Your task to perform on an android device: empty trash in the gmail app Image 0: 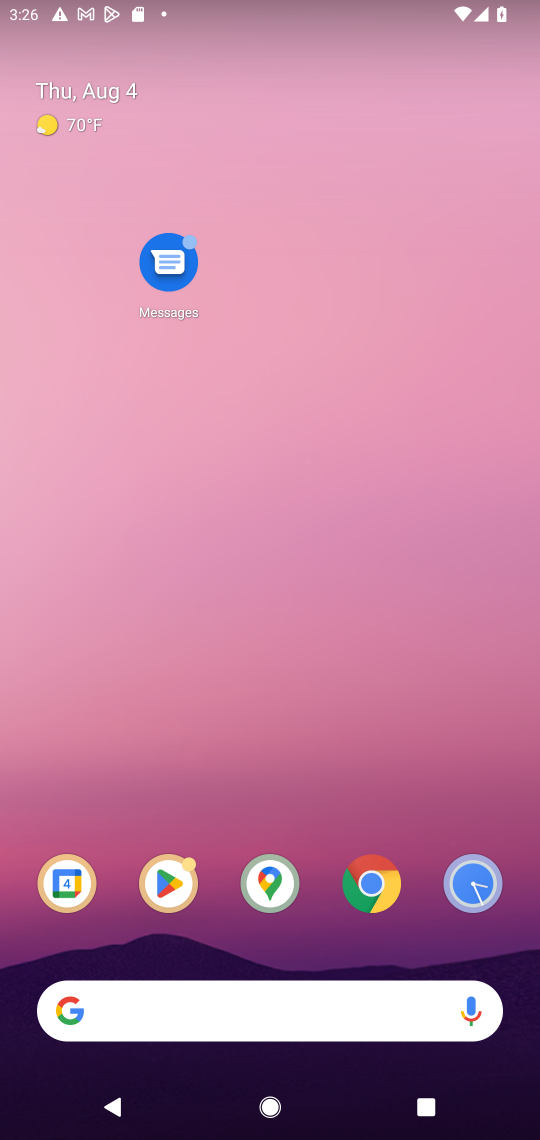
Step 0: drag from (313, 959) to (338, 29)
Your task to perform on an android device: empty trash in the gmail app Image 1: 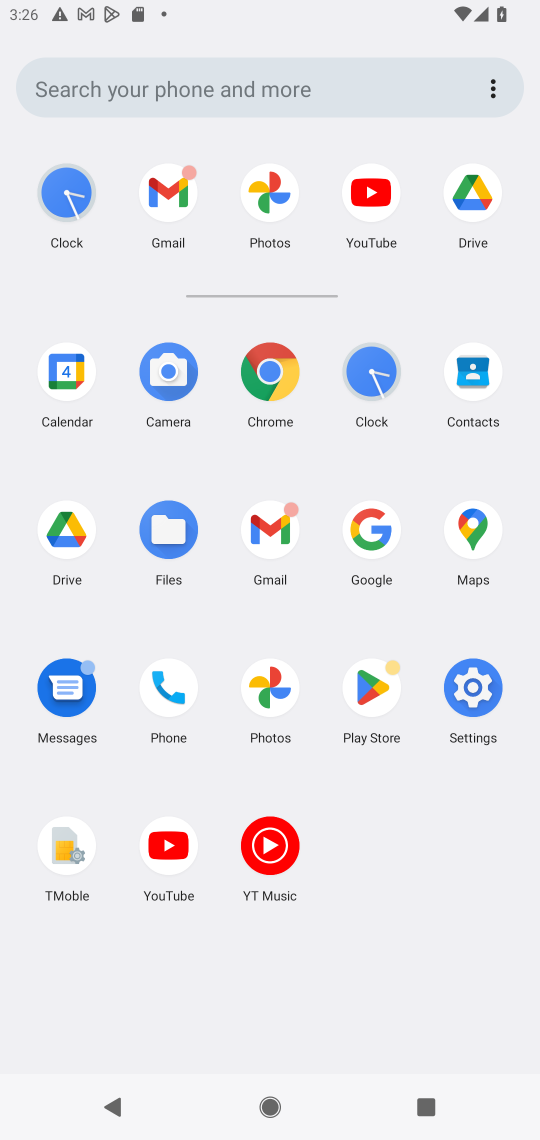
Step 1: click (266, 523)
Your task to perform on an android device: empty trash in the gmail app Image 2: 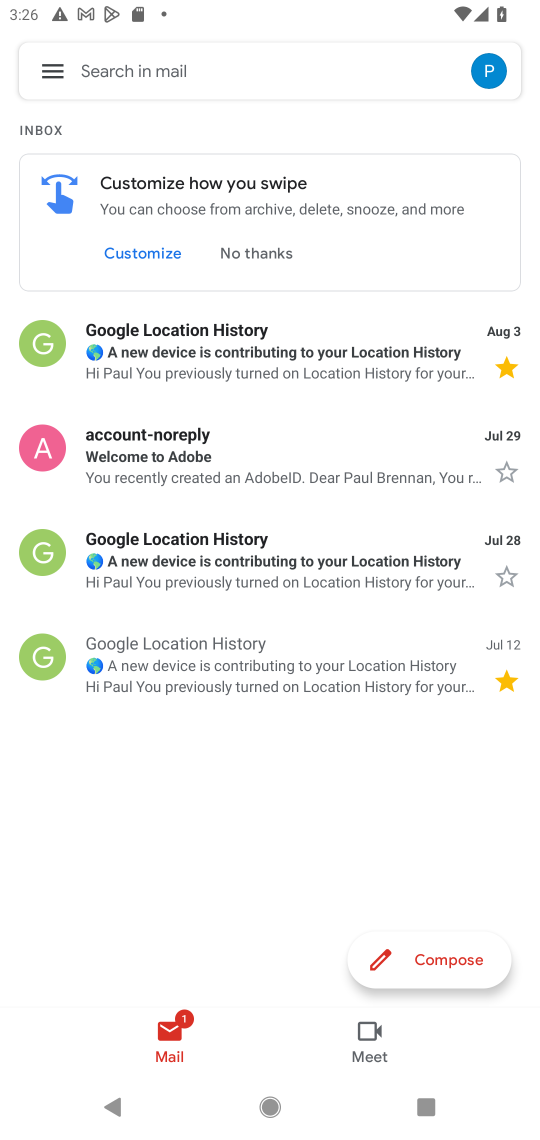
Step 2: click (51, 74)
Your task to perform on an android device: empty trash in the gmail app Image 3: 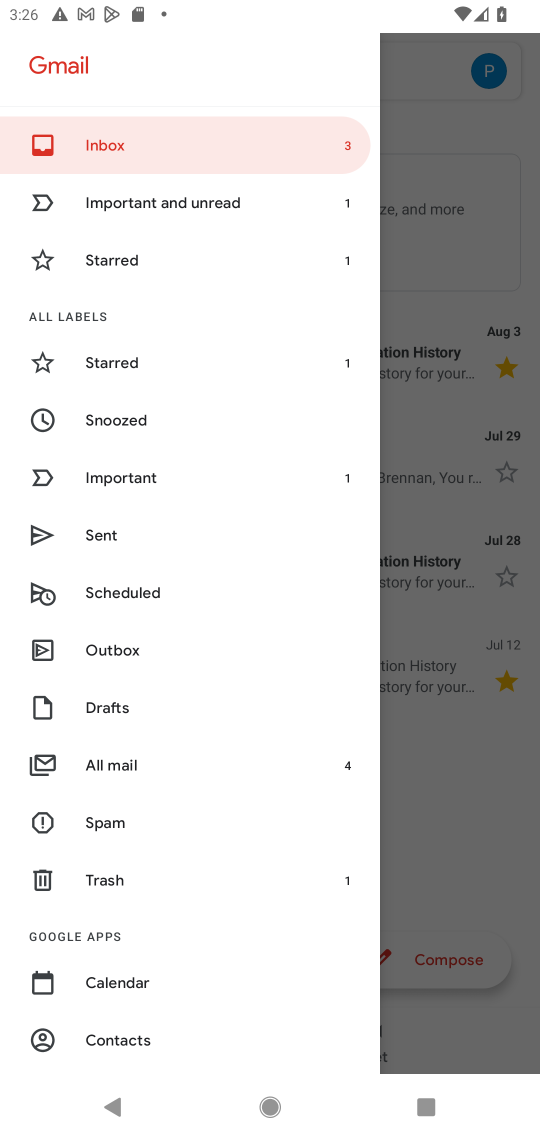
Step 3: click (99, 872)
Your task to perform on an android device: empty trash in the gmail app Image 4: 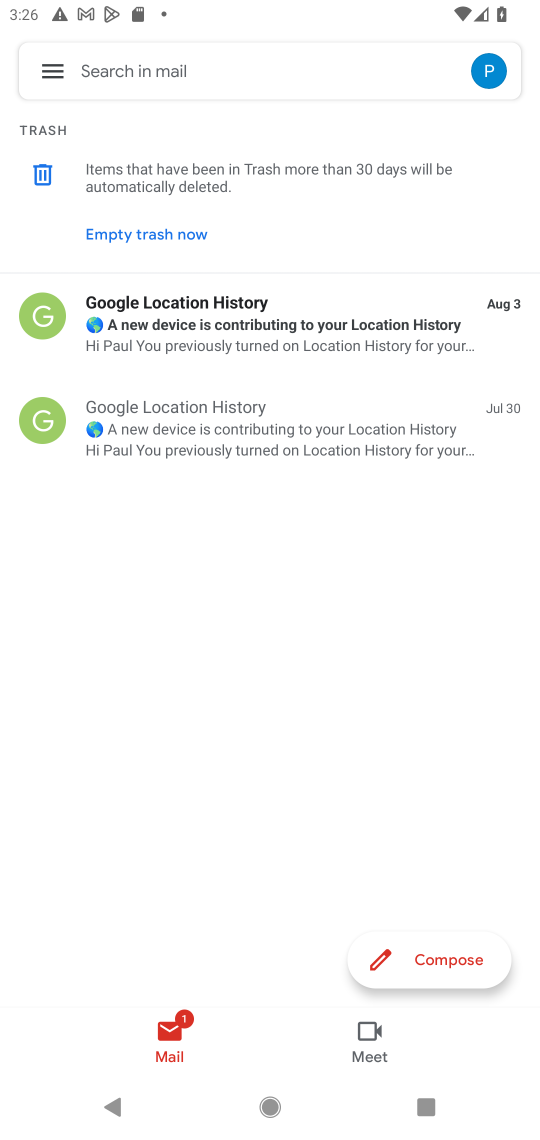
Step 4: click (157, 233)
Your task to perform on an android device: empty trash in the gmail app Image 5: 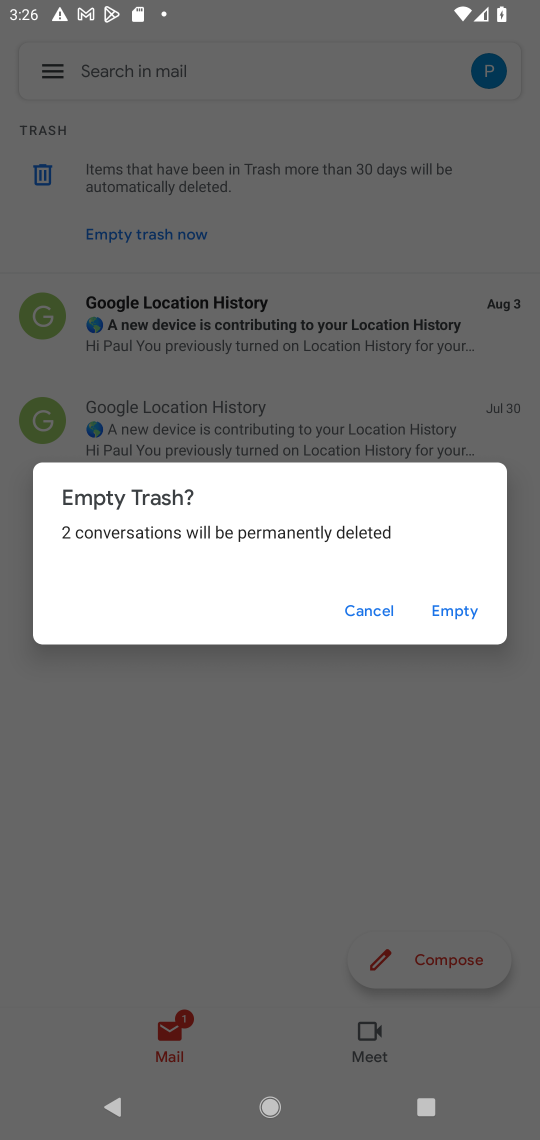
Step 5: click (457, 609)
Your task to perform on an android device: empty trash in the gmail app Image 6: 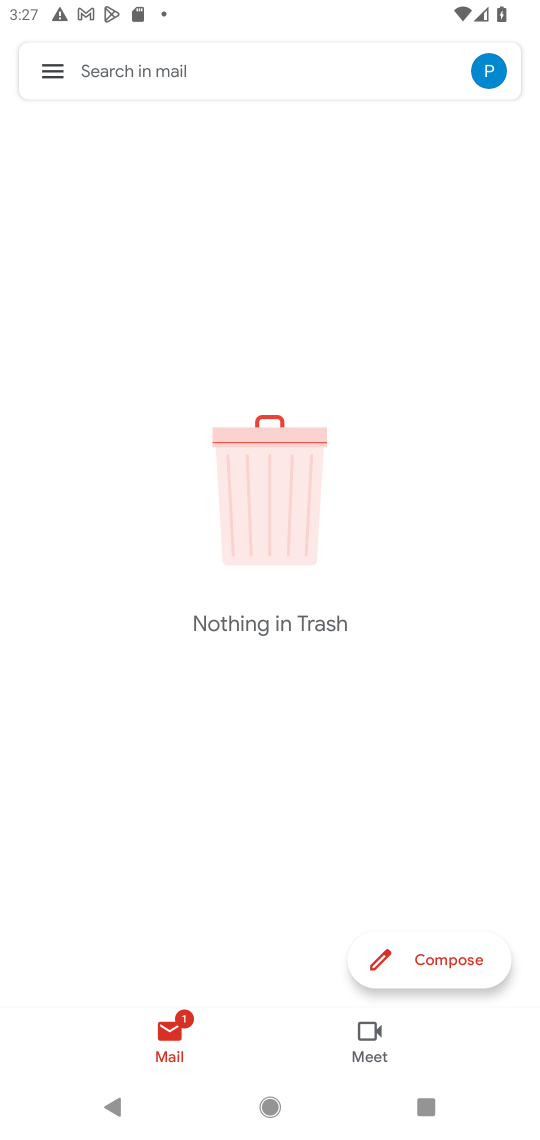
Step 6: task complete